Your task to perform on an android device: turn on showing notifications on the lock screen Image 0: 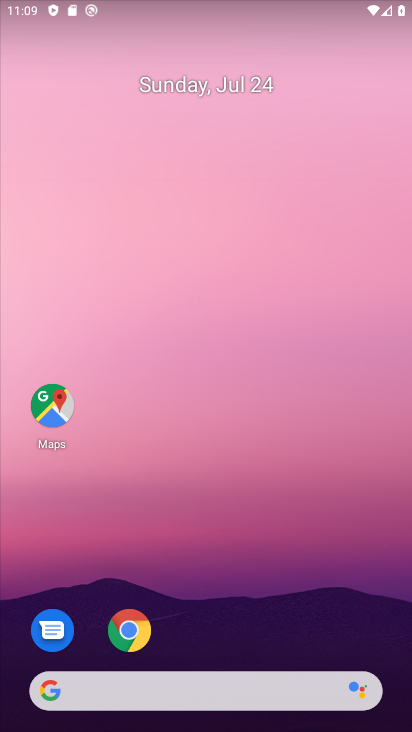
Step 0: drag from (192, 621) to (168, 177)
Your task to perform on an android device: turn on showing notifications on the lock screen Image 1: 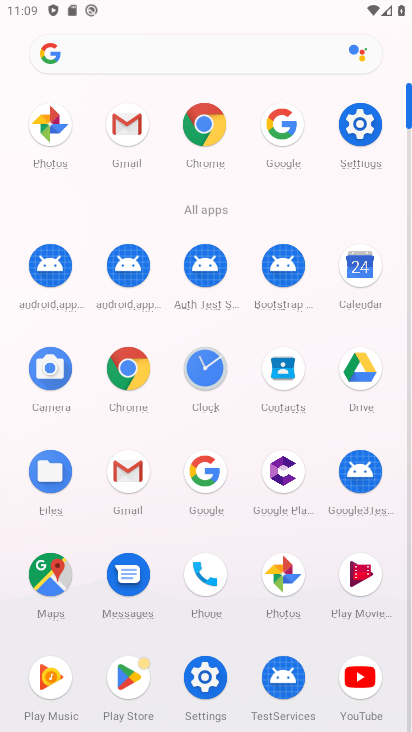
Step 1: click (356, 136)
Your task to perform on an android device: turn on showing notifications on the lock screen Image 2: 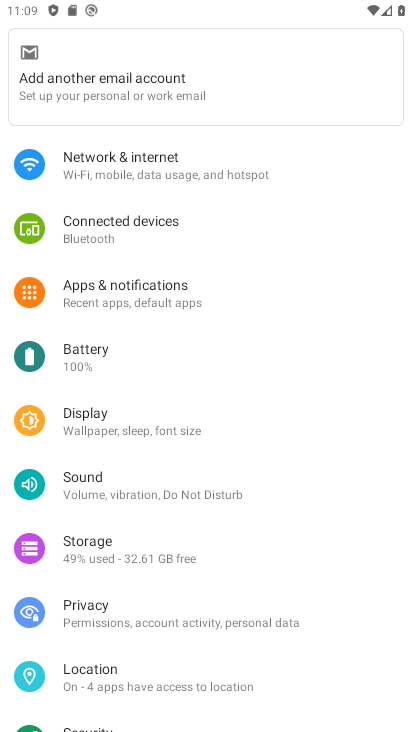
Step 2: click (81, 301)
Your task to perform on an android device: turn on showing notifications on the lock screen Image 3: 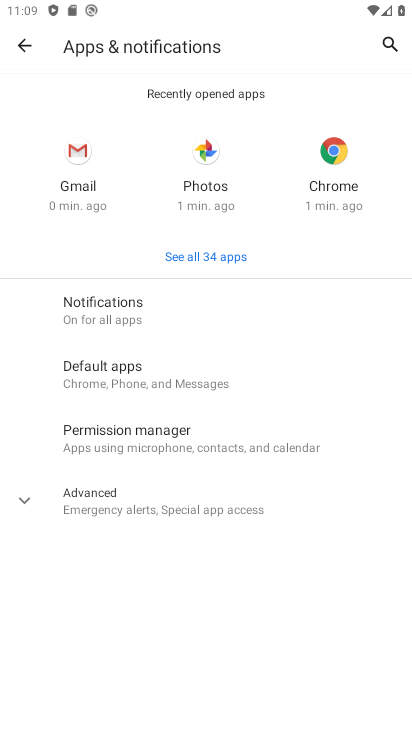
Step 3: click (69, 493)
Your task to perform on an android device: turn on showing notifications on the lock screen Image 4: 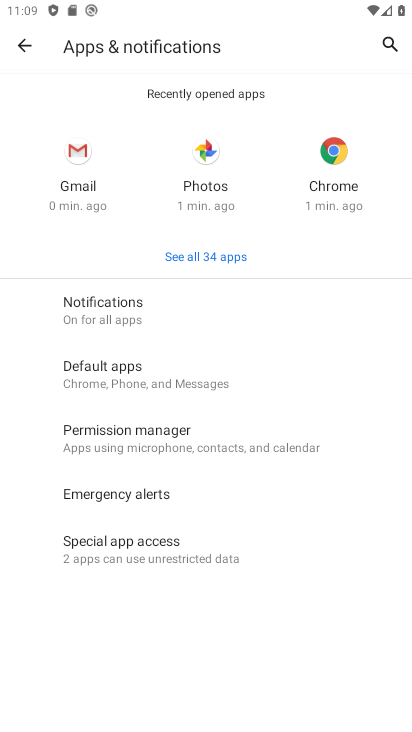
Step 4: click (106, 311)
Your task to perform on an android device: turn on showing notifications on the lock screen Image 5: 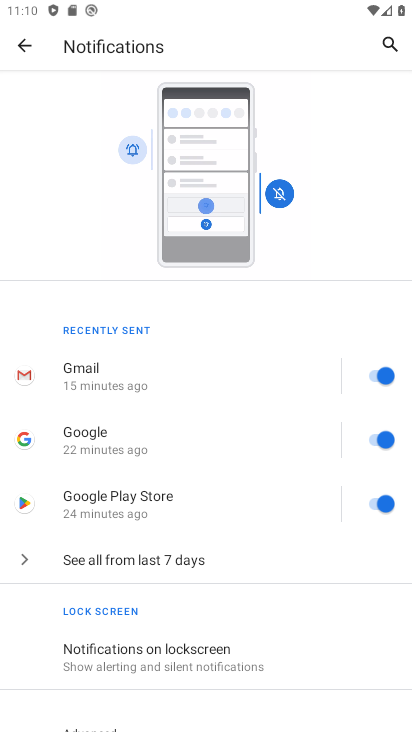
Step 5: click (72, 670)
Your task to perform on an android device: turn on showing notifications on the lock screen Image 6: 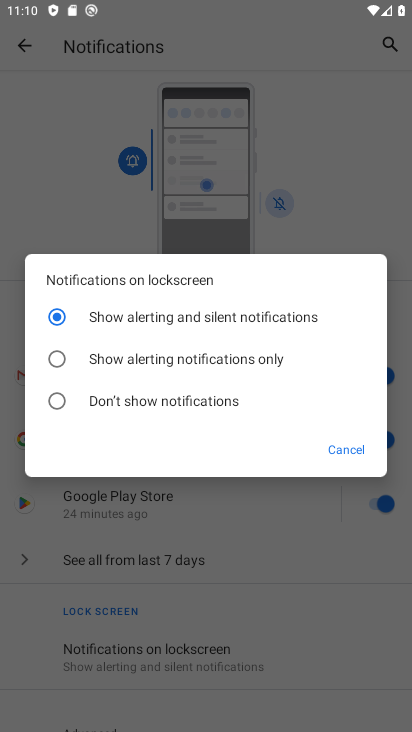
Step 6: click (55, 398)
Your task to perform on an android device: turn on showing notifications on the lock screen Image 7: 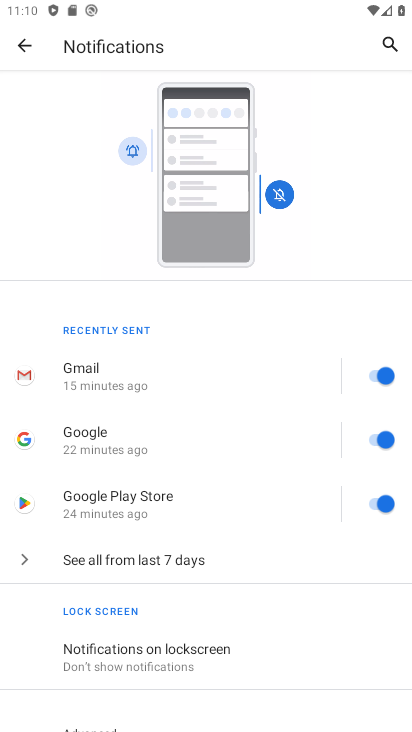
Step 7: task complete